Your task to perform on an android device: turn on wifi Image 0: 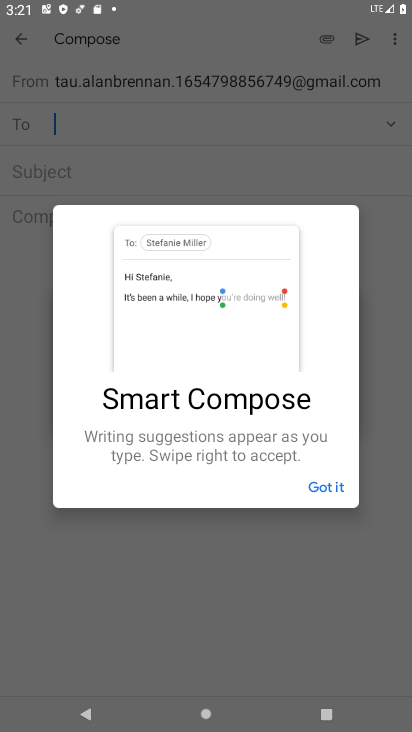
Step 0: press home button
Your task to perform on an android device: turn on wifi Image 1: 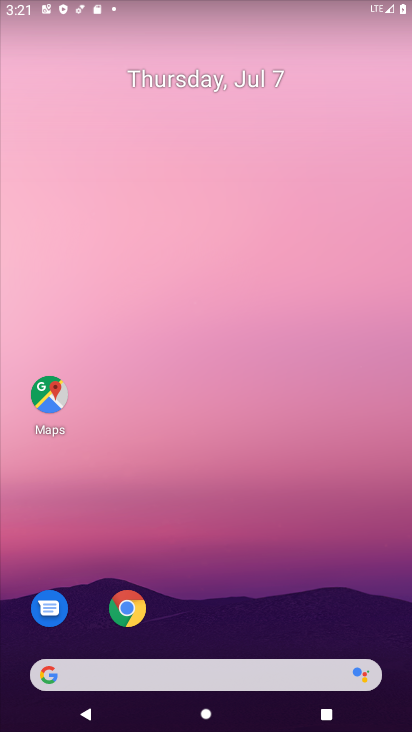
Step 1: drag from (390, 638) to (305, 79)
Your task to perform on an android device: turn on wifi Image 2: 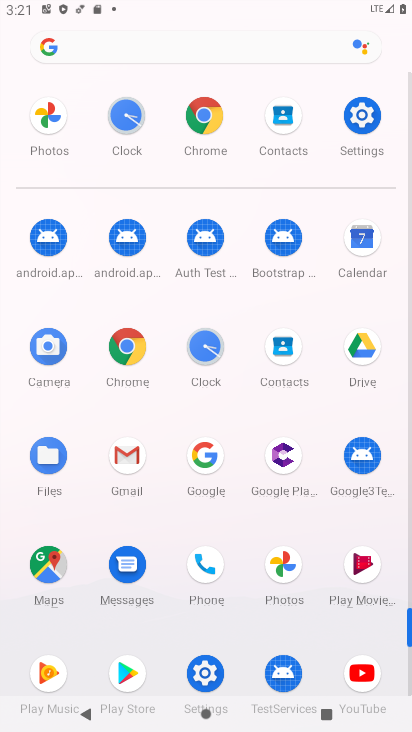
Step 2: click (205, 673)
Your task to perform on an android device: turn on wifi Image 3: 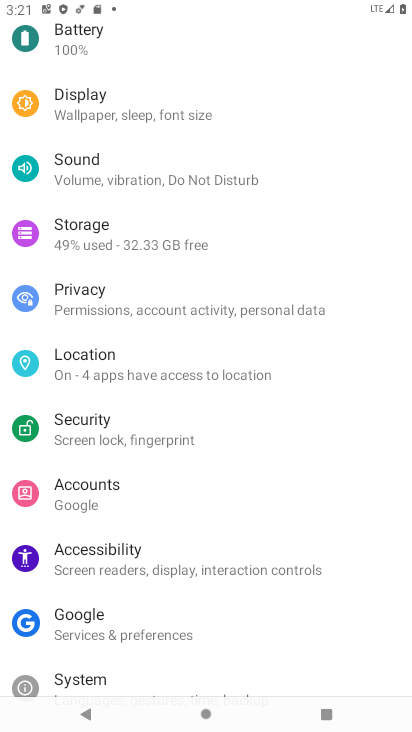
Step 3: drag from (342, 127) to (344, 337)
Your task to perform on an android device: turn on wifi Image 4: 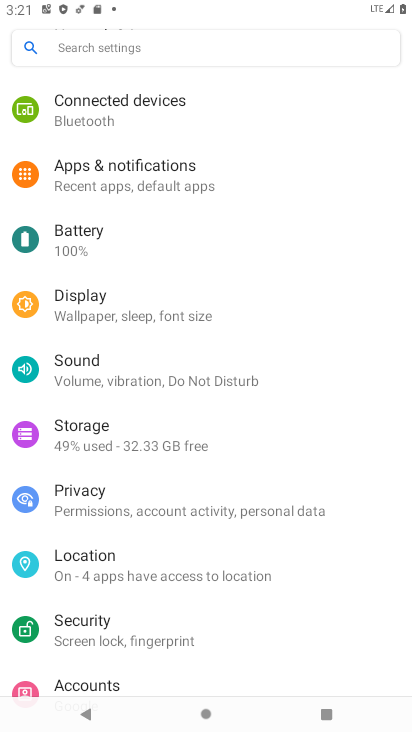
Step 4: drag from (317, 147) to (334, 434)
Your task to perform on an android device: turn on wifi Image 5: 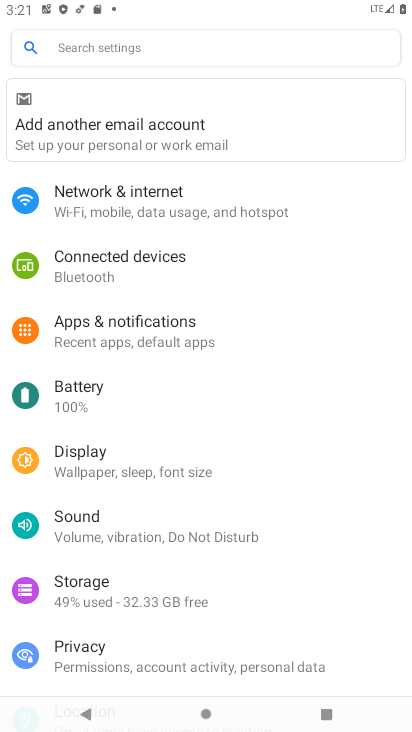
Step 5: click (120, 192)
Your task to perform on an android device: turn on wifi Image 6: 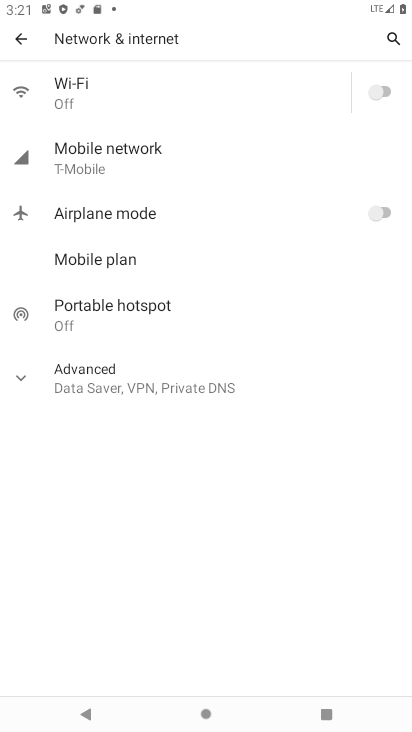
Step 6: click (387, 86)
Your task to perform on an android device: turn on wifi Image 7: 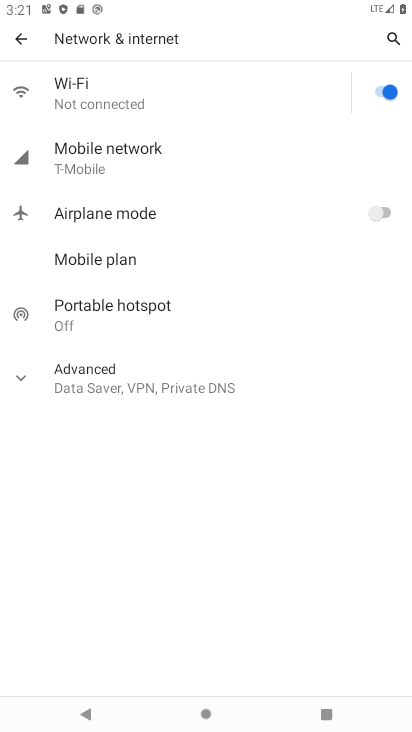
Step 7: task complete